Your task to perform on an android device: turn off notifications settings in the gmail app Image 0: 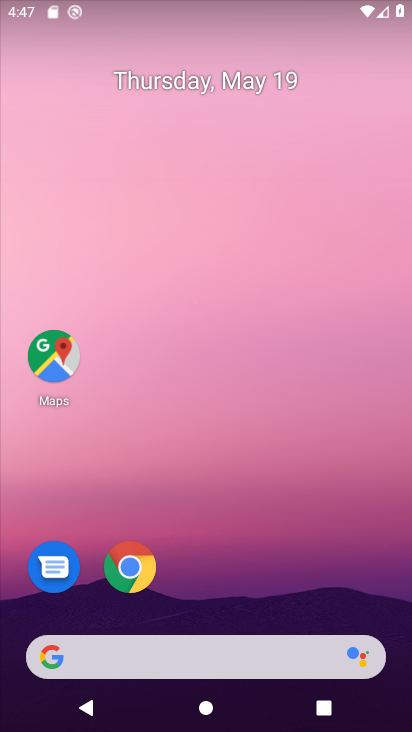
Step 0: drag from (286, 576) to (277, 73)
Your task to perform on an android device: turn off notifications settings in the gmail app Image 1: 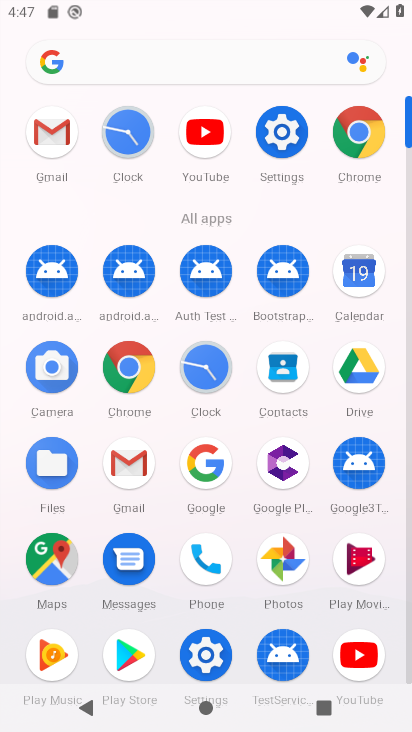
Step 1: click (54, 129)
Your task to perform on an android device: turn off notifications settings in the gmail app Image 2: 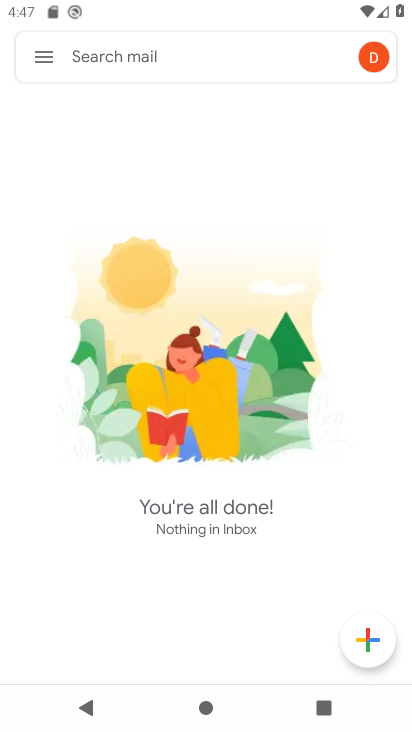
Step 2: click (37, 55)
Your task to perform on an android device: turn off notifications settings in the gmail app Image 3: 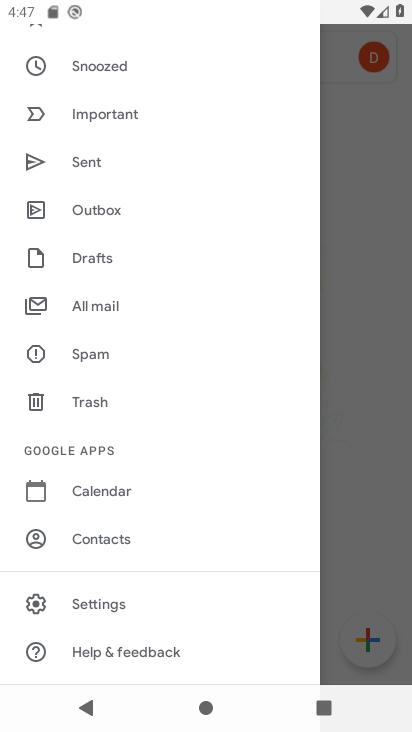
Step 3: click (111, 607)
Your task to perform on an android device: turn off notifications settings in the gmail app Image 4: 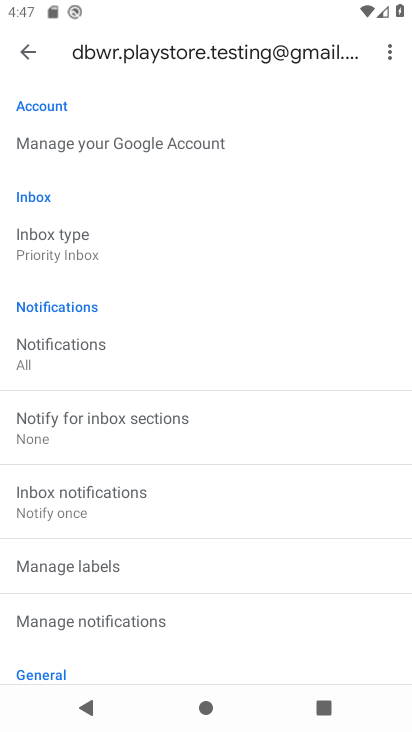
Step 4: drag from (129, 565) to (167, 502)
Your task to perform on an android device: turn off notifications settings in the gmail app Image 5: 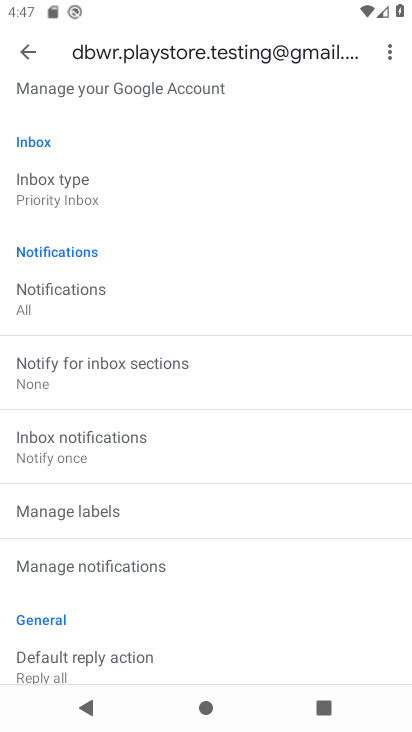
Step 5: click (123, 566)
Your task to perform on an android device: turn off notifications settings in the gmail app Image 6: 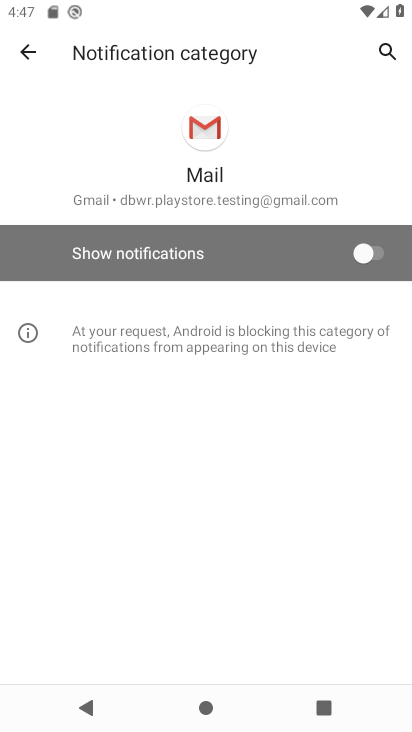
Step 6: task complete